Your task to perform on an android device: Turn off the flashlight Image 0: 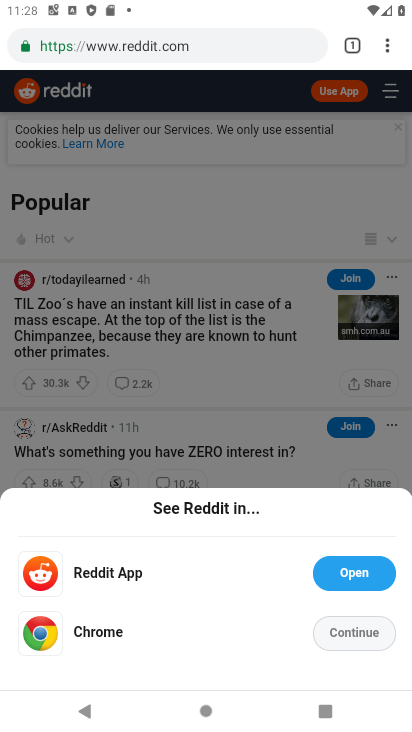
Step 0: press home button
Your task to perform on an android device: Turn off the flashlight Image 1: 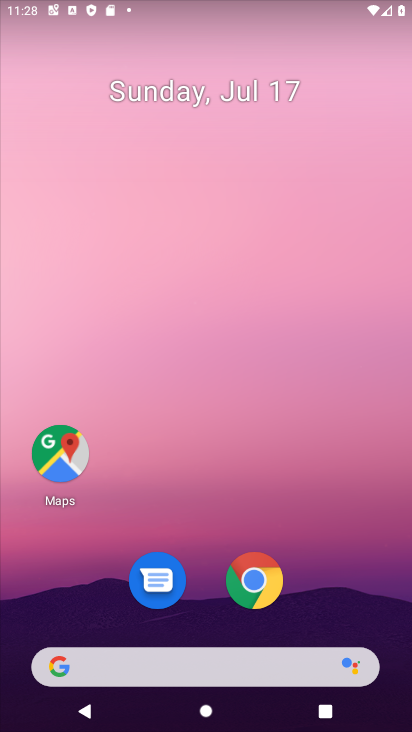
Step 1: task complete